Your task to perform on an android device: move an email to a new category in the gmail app Image 0: 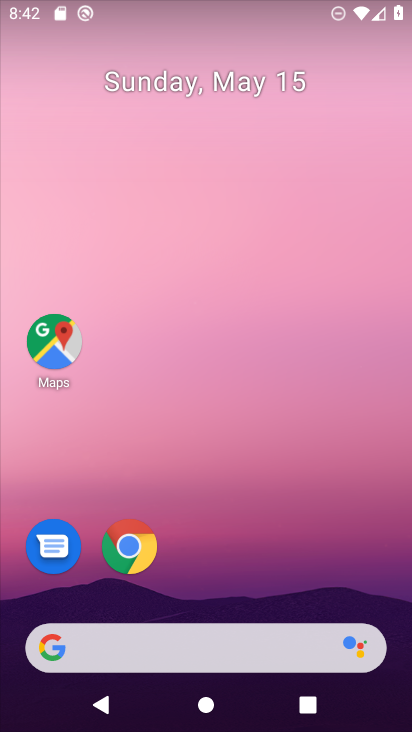
Step 0: drag from (271, 514) to (257, 37)
Your task to perform on an android device: move an email to a new category in the gmail app Image 1: 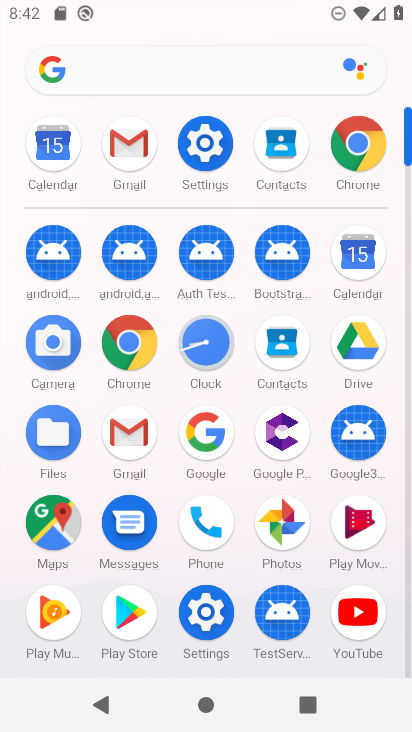
Step 1: click (139, 131)
Your task to perform on an android device: move an email to a new category in the gmail app Image 2: 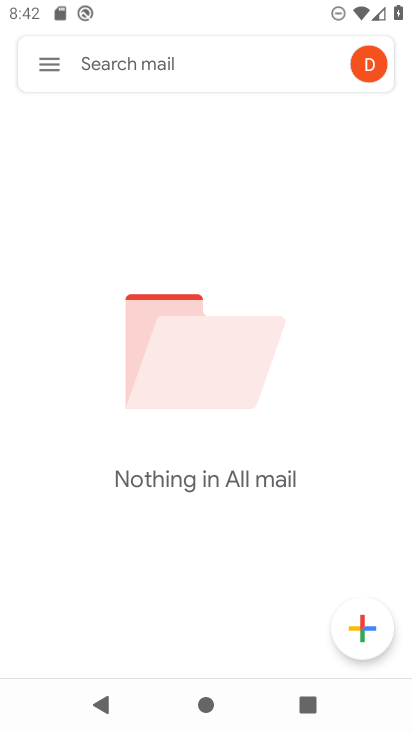
Step 2: task complete